Your task to perform on an android device: Open Wikipedia Image 0: 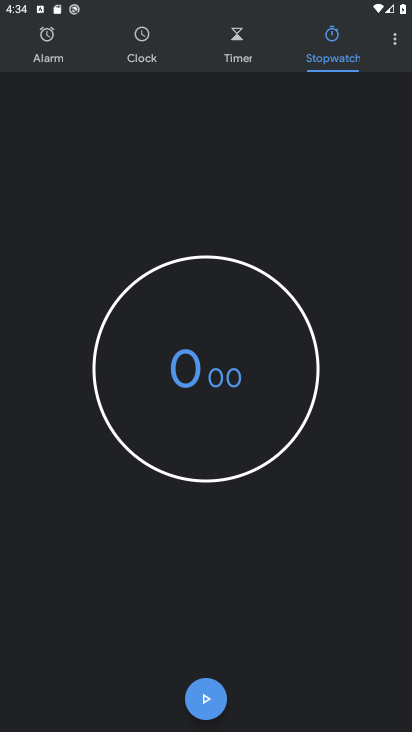
Step 0: press home button
Your task to perform on an android device: Open Wikipedia Image 1: 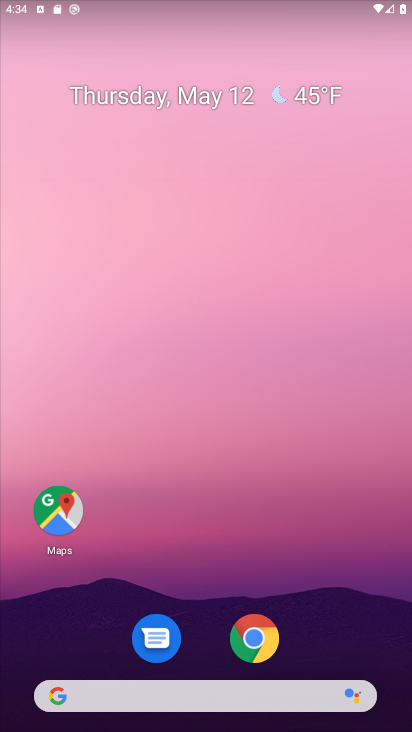
Step 1: click (261, 632)
Your task to perform on an android device: Open Wikipedia Image 2: 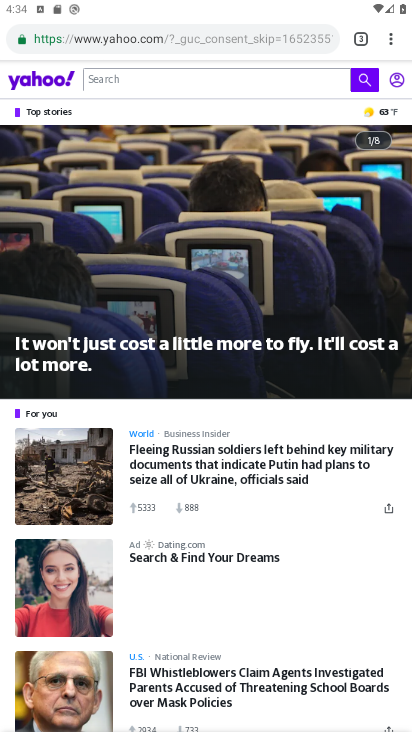
Step 2: click (348, 39)
Your task to perform on an android device: Open Wikipedia Image 3: 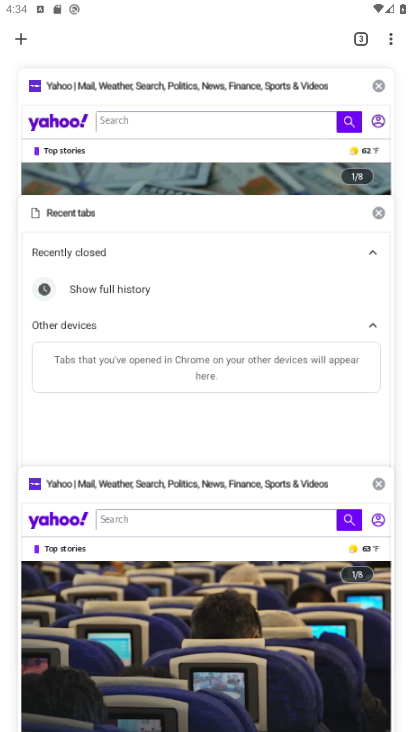
Step 3: click (22, 36)
Your task to perform on an android device: Open Wikipedia Image 4: 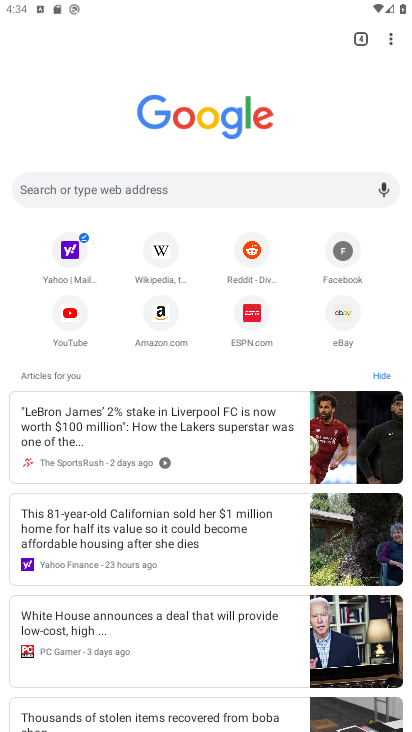
Step 4: click (163, 244)
Your task to perform on an android device: Open Wikipedia Image 5: 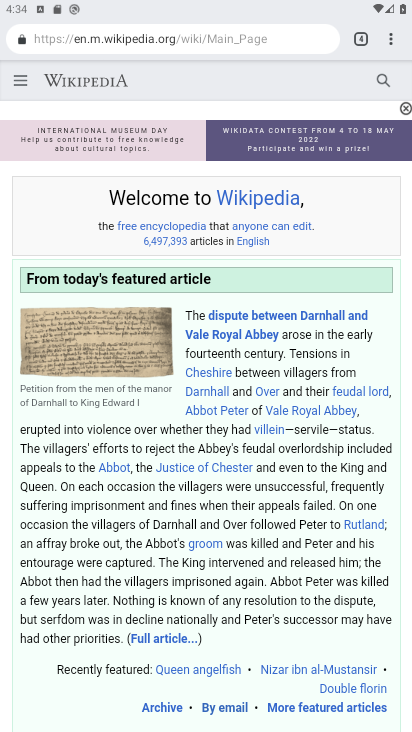
Step 5: task complete